Your task to perform on an android device: Turn on the flashlight Image 0: 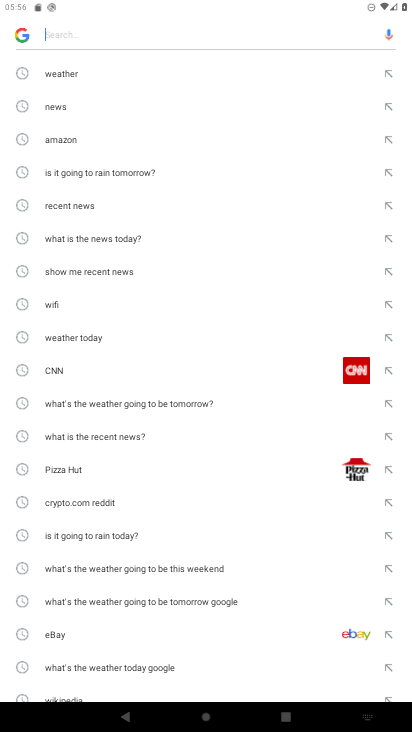
Step 0: press home button
Your task to perform on an android device: Turn on the flashlight Image 1: 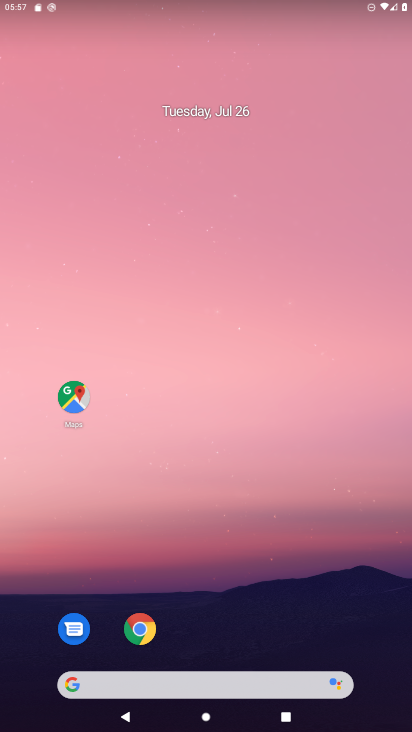
Step 1: task complete